Your task to perform on an android device: Open privacy settings Image 0: 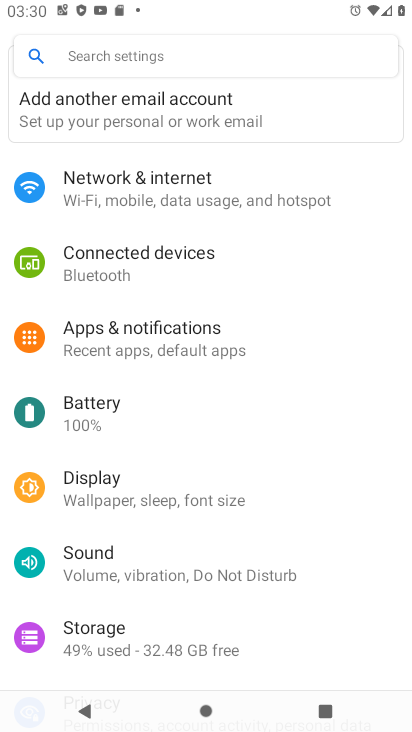
Step 0: press home button
Your task to perform on an android device: Open privacy settings Image 1: 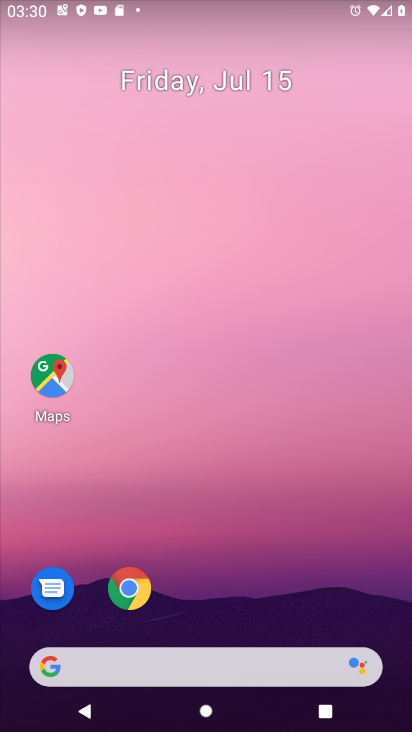
Step 1: drag from (204, 672) to (224, 172)
Your task to perform on an android device: Open privacy settings Image 2: 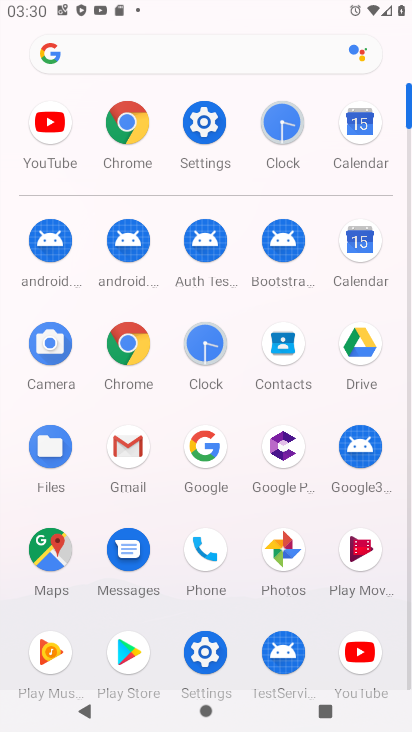
Step 2: click (204, 120)
Your task to perform on an android device: Open privacy settings Image 3: 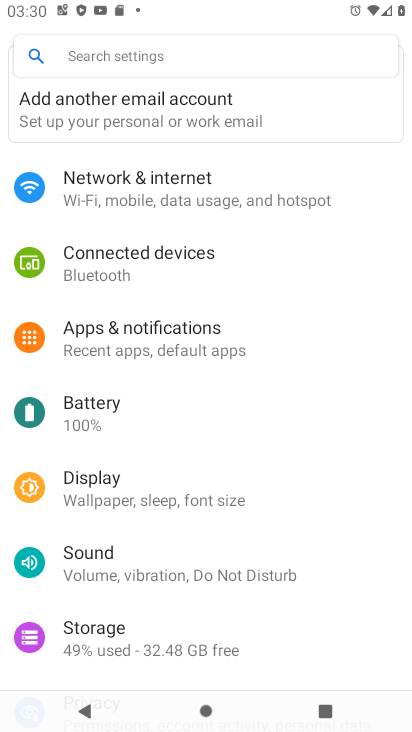
Step 3: drag from (141, 554) to (149, 418)
Your task to perform on an android device: Open privacy settings Image 4: 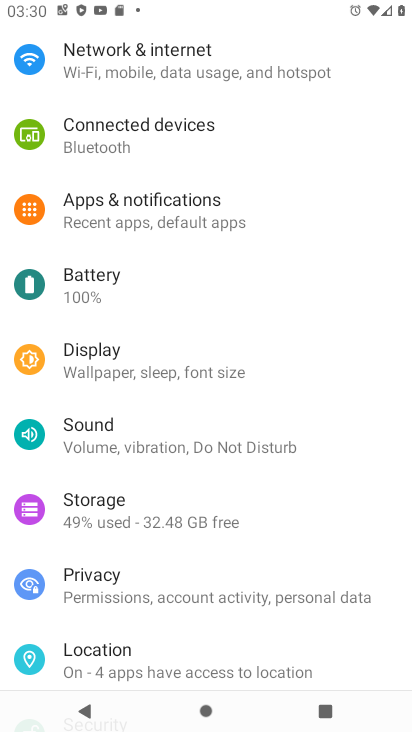
Step 4: click (163, 587)
Your task to perform on an android device: Open privacy settings Image 5: 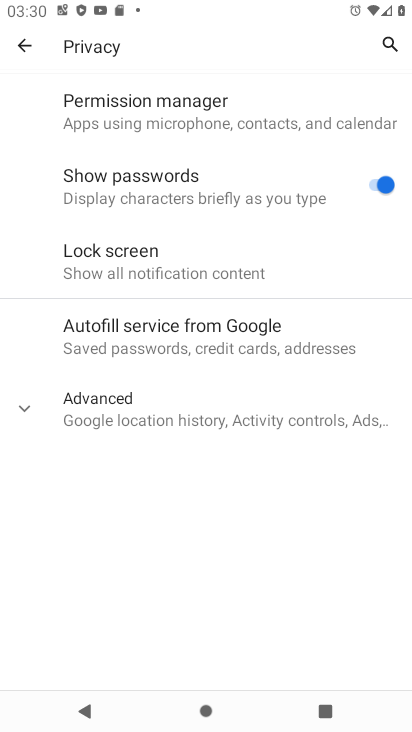
Step 5: task complete